Your task to perform on an android device: Find coffee shops on Maps Image 0: 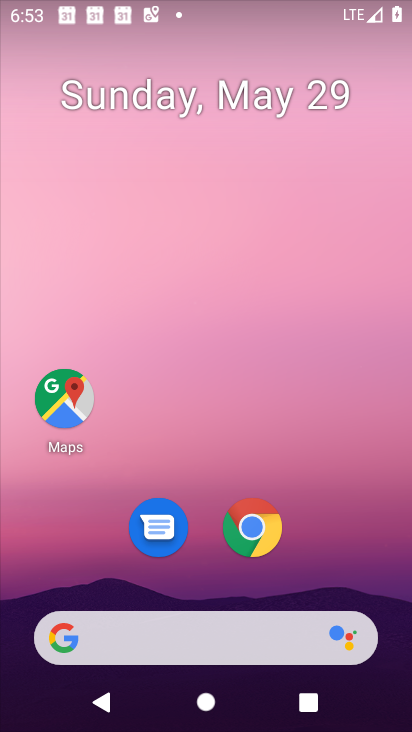
Step 0: drag from (364, 587) to (326, 33)
Your task to perform on an android device: Find coffee shops on Maps Image 1: 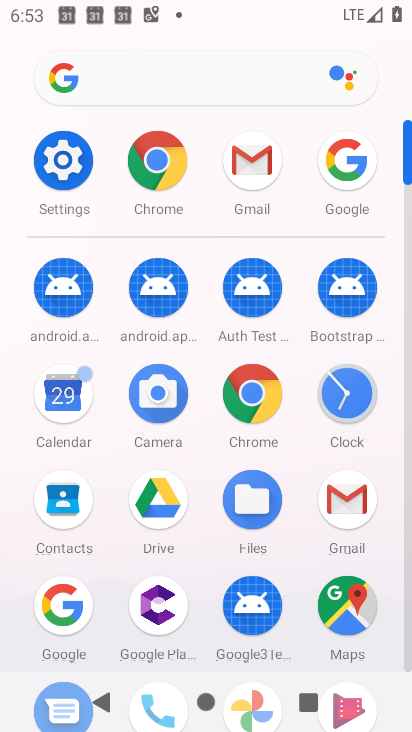
Step 1: click (336, 613)
Your task to perform on an android device: Find coffee shops on Maps Image 2: 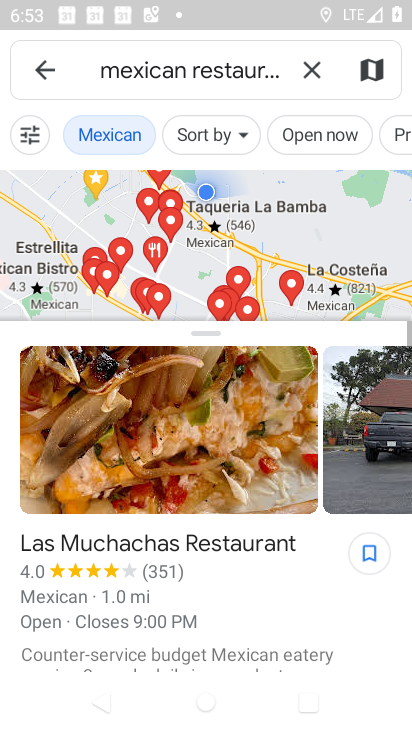
Step 2: click (308, 63)
Your task to perform on an android device: Find coffee shops on Maps Image 3: 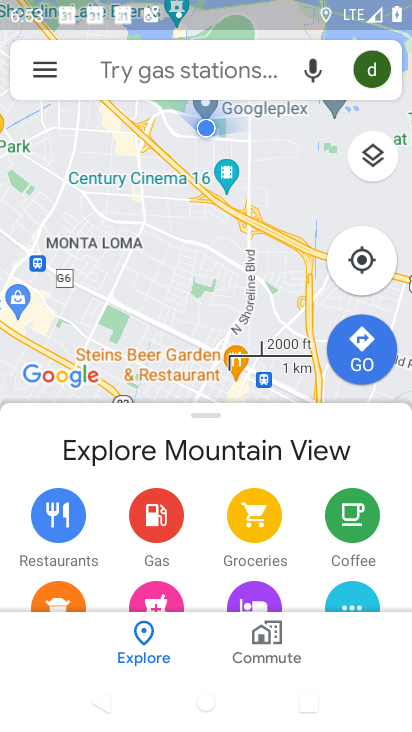
Step 3: click (137, 82)
Your task to perform on an android device: Find coffee shops on Maps Image 4: 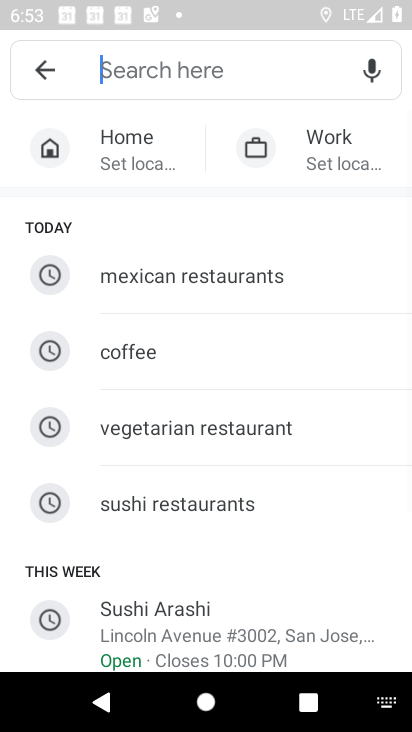
Step 4: click (126, 340)
Your task to perform on an android device: Find coffee shops on Maps Image 5: 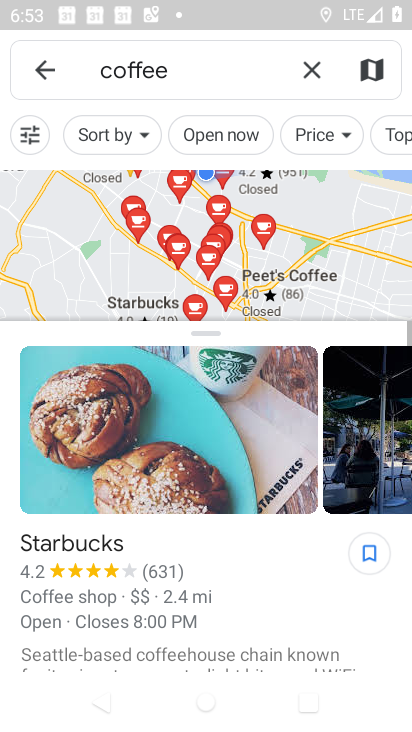
Step 5: task complete